Your task to perform on an android device: visit the assistant section in the google photos Image 0: 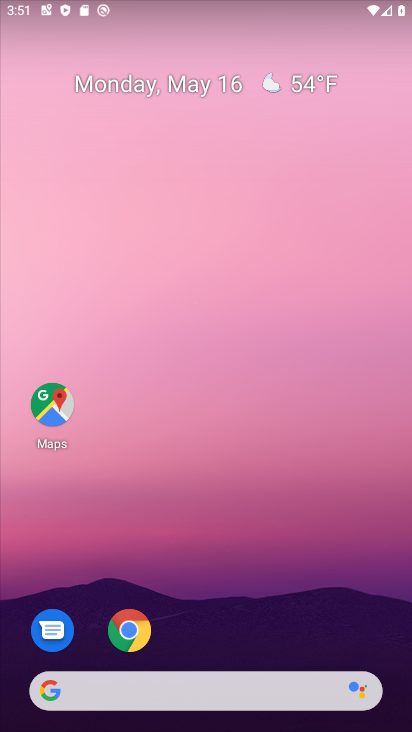
Step 0: drag from (252, 640) to (257, 86)
Your task to perform on an android device: visit the assistant section in the google photos Image 1: 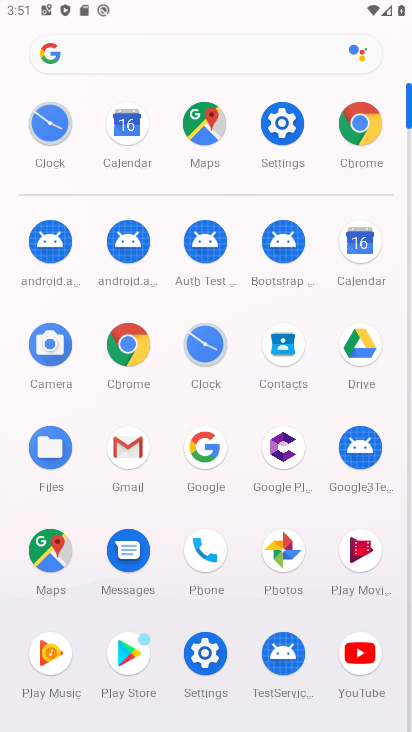
Step 1: click (282, 546)
Your task to perform on an android device: visit the assistant section in the google photos Image 2: 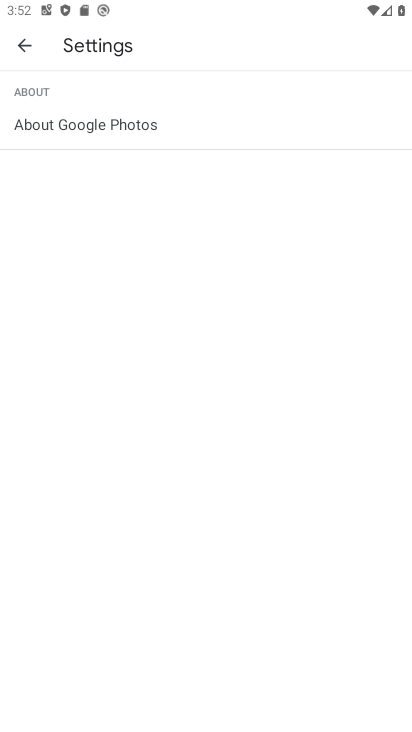
Step 2: click (26, 47)
Your task to perform on an android device: visit the assistant section in the google photos Image 3: 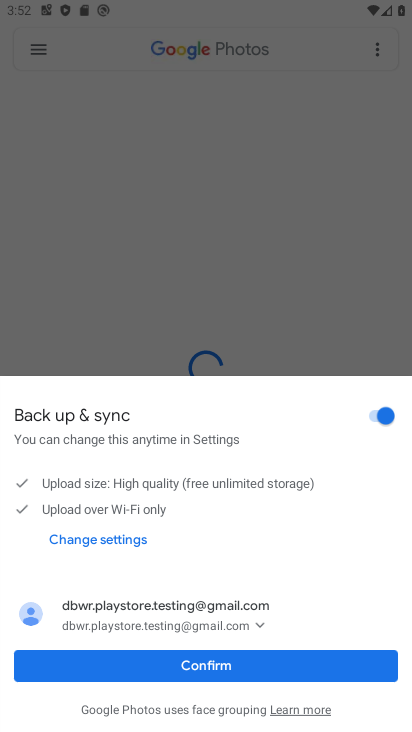
Step 3: click (274, 663)
Your task to perform on an android device: visit the assistant section in the google photos Image 4: 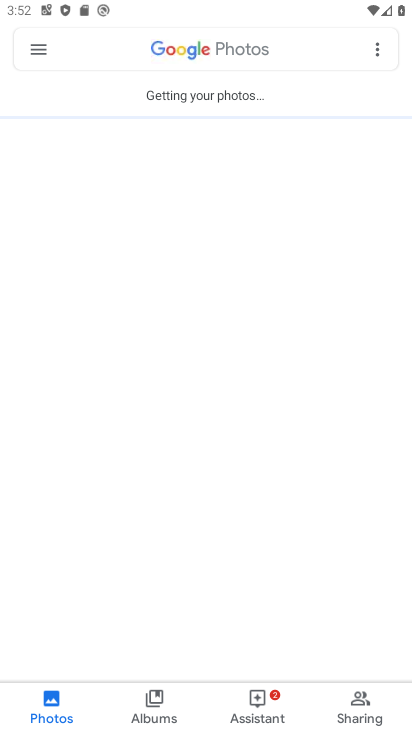
Step 4: click (271, 694)
Your task to perform on an android device: visit the assistant section in the google photos Image 5: 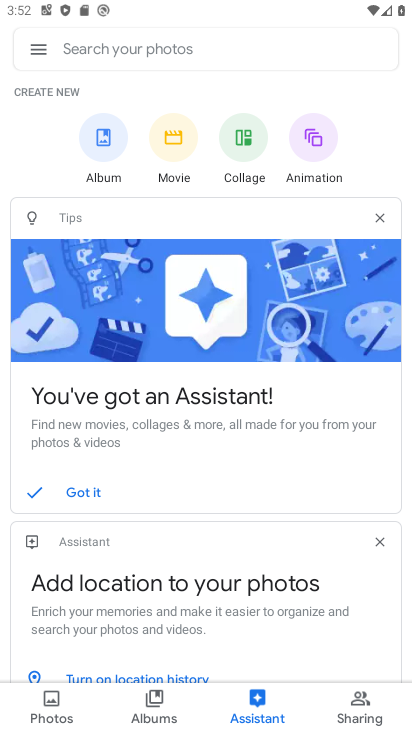
Step 5: task complete